Your task to perform on an android device: toggle improve location accuracy Image 0: 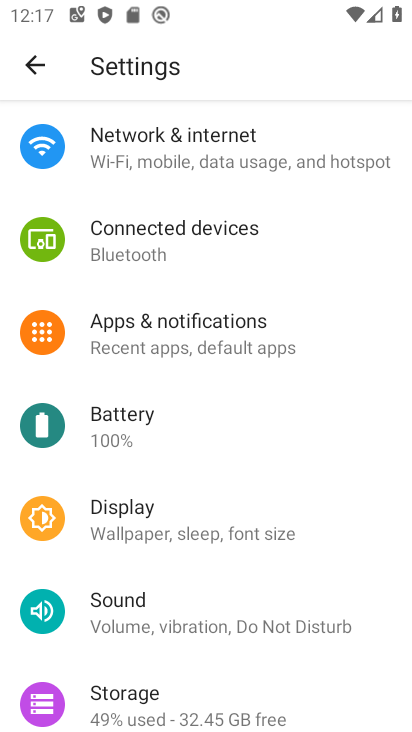
Step 0: drag from (292, 654) to (292, 287)
Your task to perform on an android device: toggle improve location accuracy Image 1: 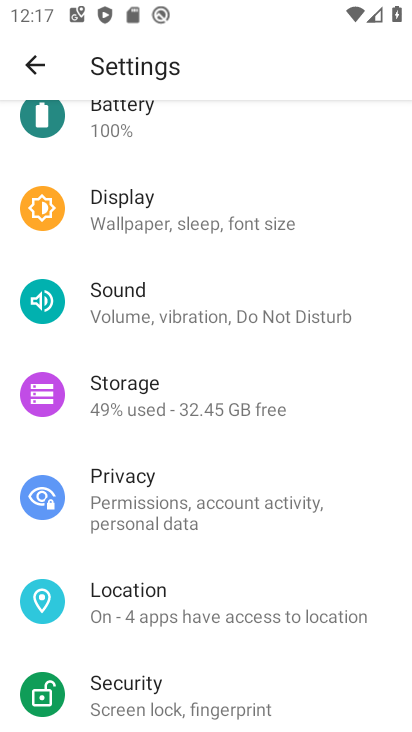
Step 1: click (204, 619)
Your task to perform on an android device: toggle improve location accuracy Image 2: 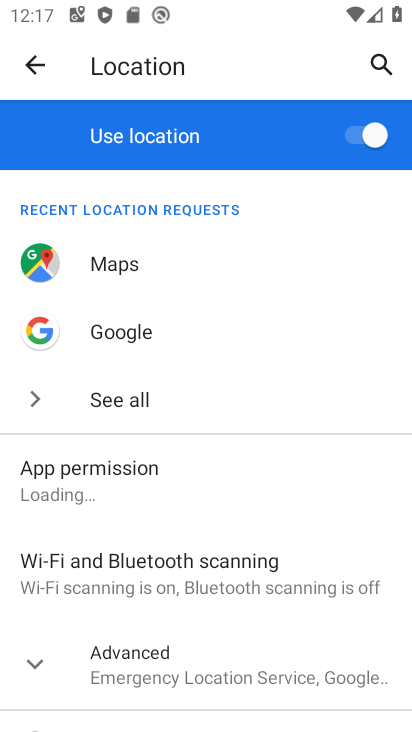
Step 2: click (166, 674)
Your task to perform on an android device: toggle improve location accuracy Image 3: 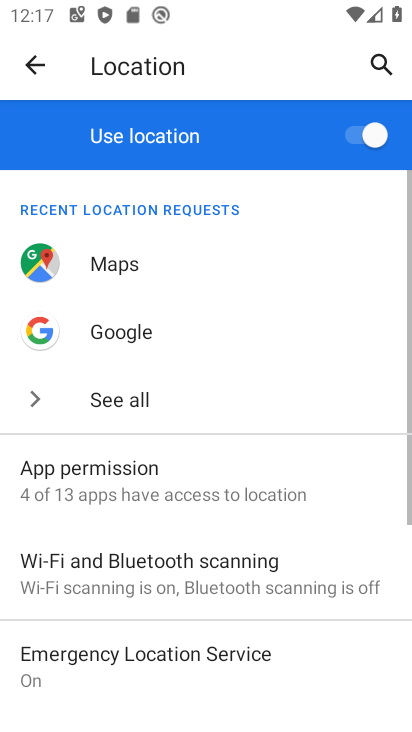
Step 3: drag from (262, 642) to (269, 381)
Your task to perform on an android device: toggle improve location accuracy Image 4: 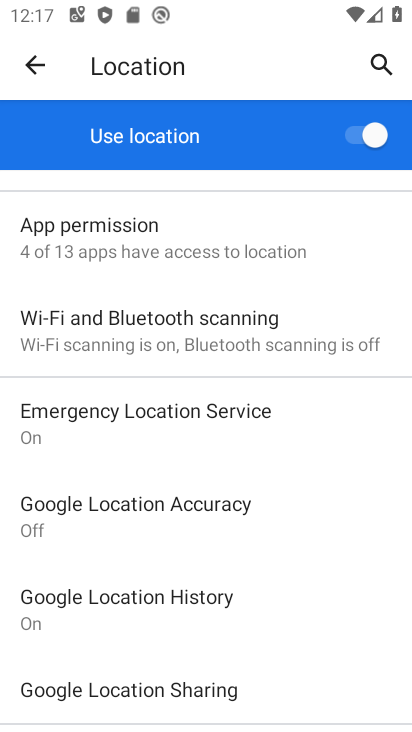
Step 4: click (180, 515)
Your task to perform on an android device: toggle improve location accuracy Image 5: 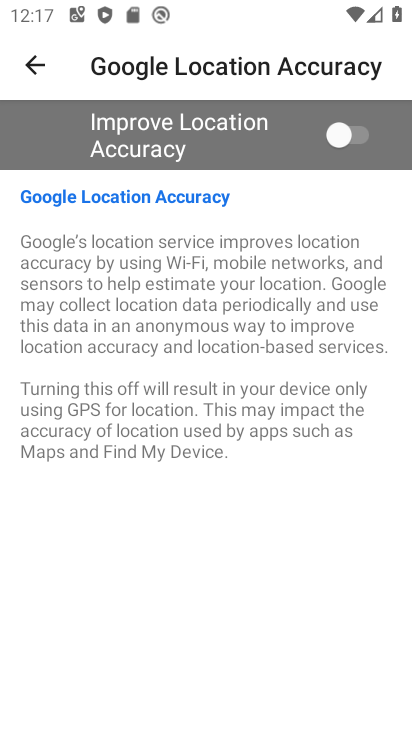
Step 5: click (347, 135)
Your task to perform on an android device: toggle improve location accuracy Image 6: 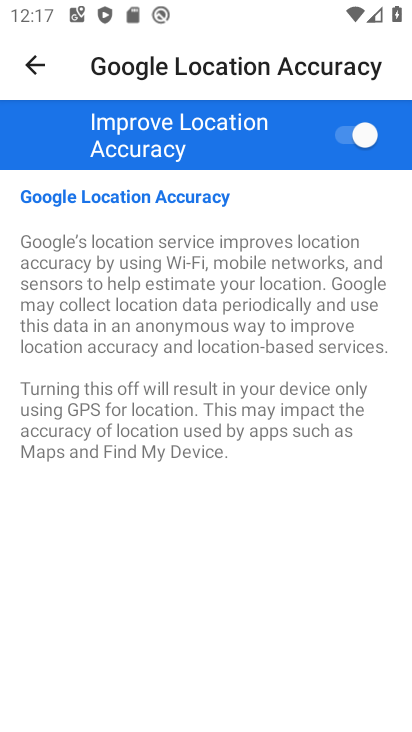
Step 6: task complete